Your task to perform on an android device: Open Google Chrome and click the shortcut for Amazon.com Image 0: 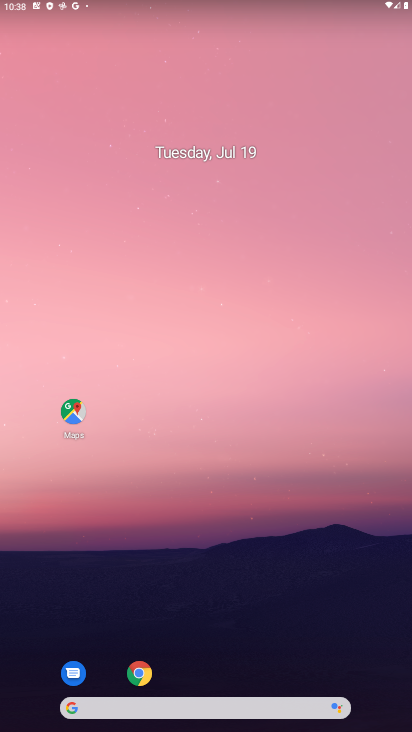
Step 0: click (189, 714)
Your task to perform on an android device: Open Google Chrome and click the shortcut for Amazon.com Image 1: 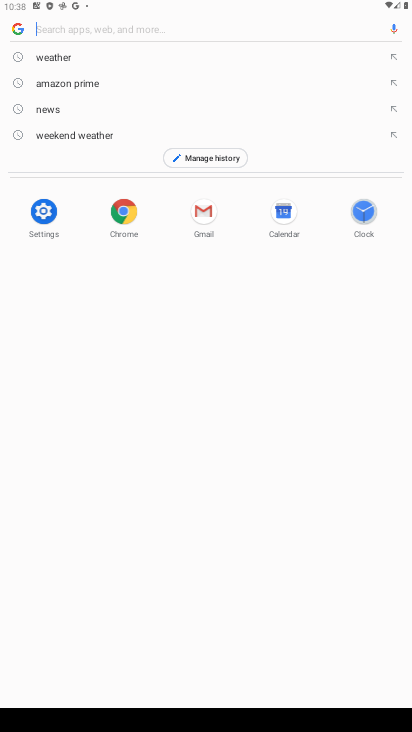
Step 1: type "amazon"
Your task to perform on an android device: Open Google Chrome and click the shortcut for Amazon.com Image 2: 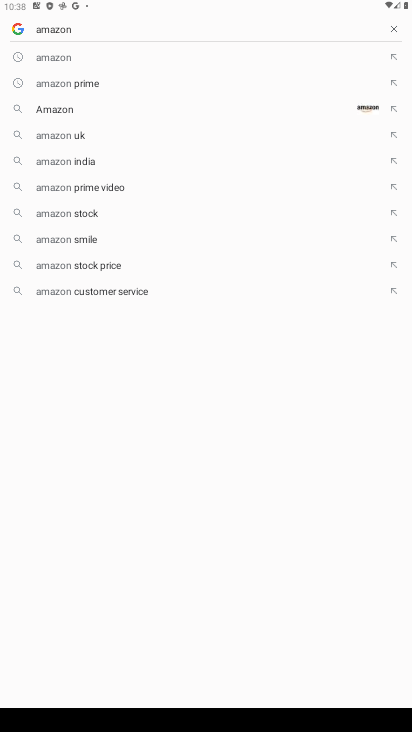
Step 2: click (72, 55)
Your task to perform on an android device: Open Google Chrome and click the shortcut for Amazon.com Image 3: 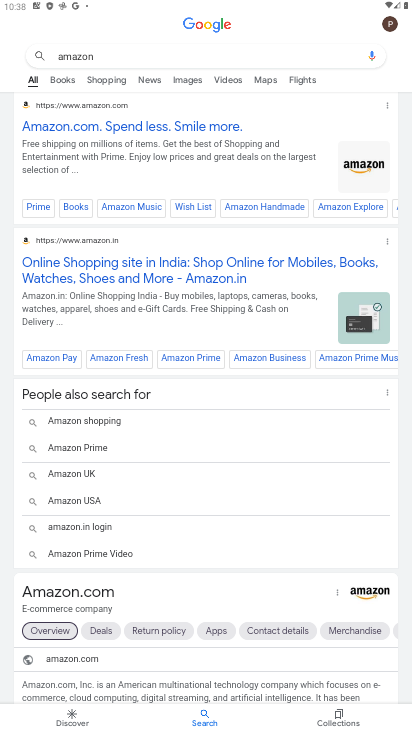
Step 3: task complete